Your task to perform on an android device: Open Chrome and go to settings Image 0: 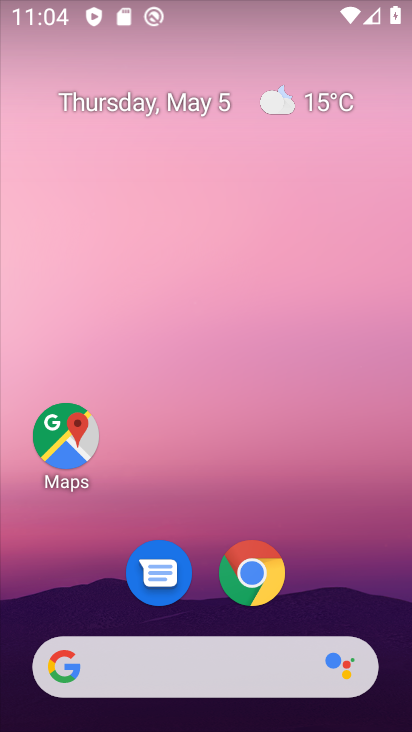
Step 0: click (272, 591)
Your task to perform on an android device: Open Chrome and go to settings Image 1: 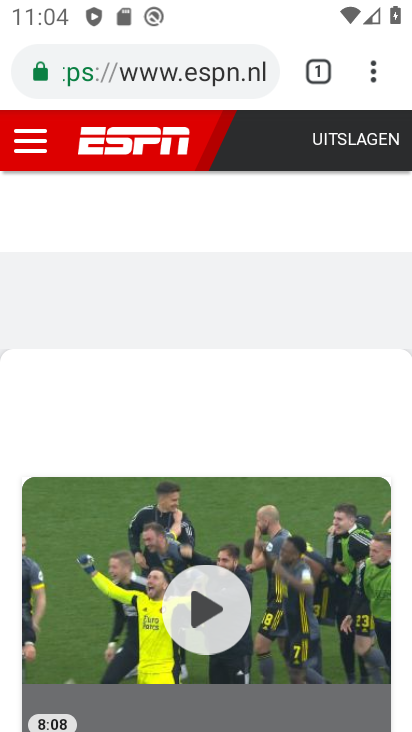
Step 1: click (370, 80)
Your task to perform on an android device: Open Chrome and go to settings Image 2: 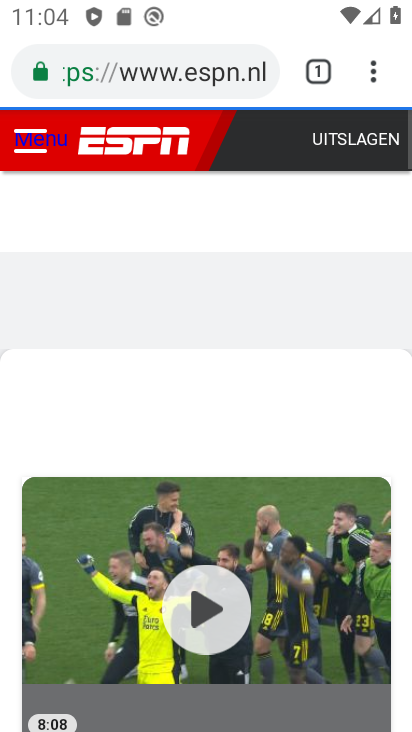
Step 2: task complete